Your task to perform on an android device: Open settings Image 0: 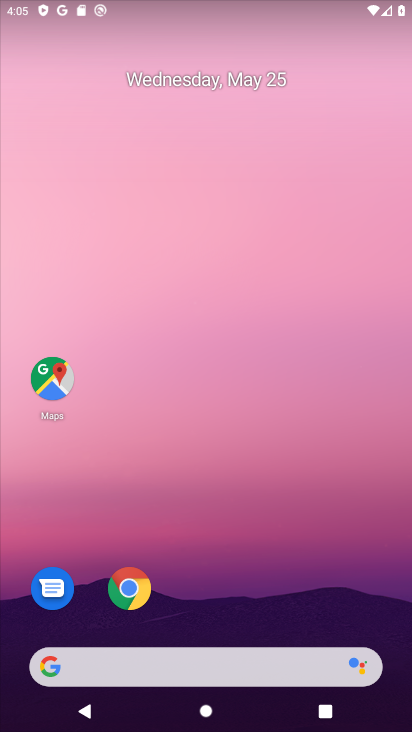
Step 0: drag from (253, 593) to (259, 25)
Your task to perform on an android device: Open settings Image 1: 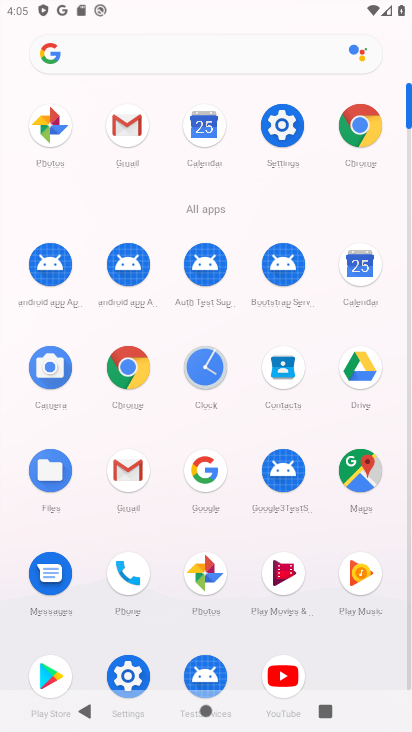
Step 1: click (273, 136)
Your task to perform on an android device: Open settings Image 2: 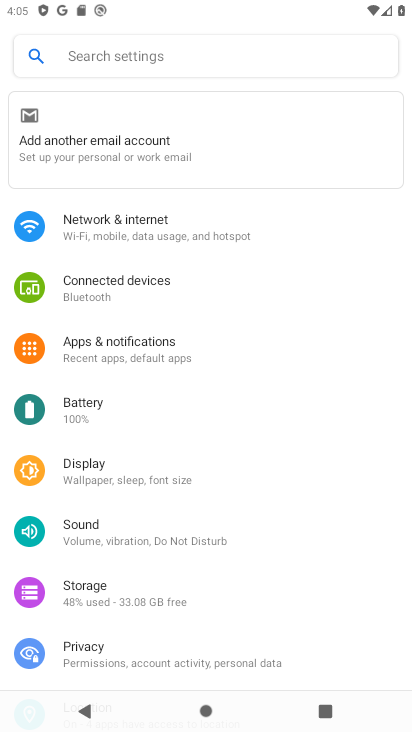
Step 2: task complete